Your task to perform on an android device: turn off sleep mode Image 0: 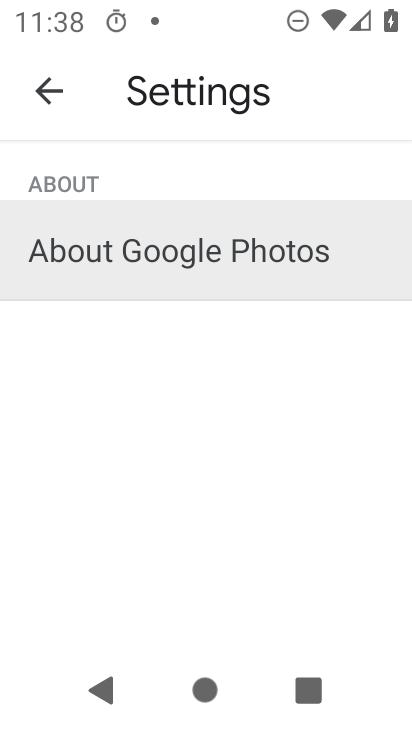
Step 0: press home button
Your task to perform on an android device: turn off sleep mode Image 1: 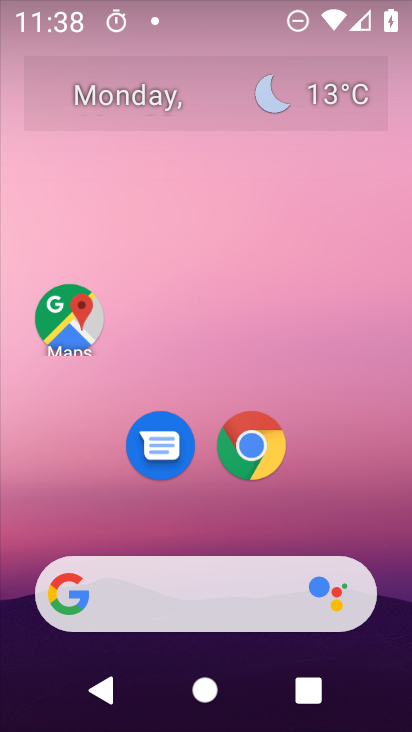
Step 1: drag from (202, 468) to (253, 21)
Your task to perform on an android device: turn off sleep mode Image 2: 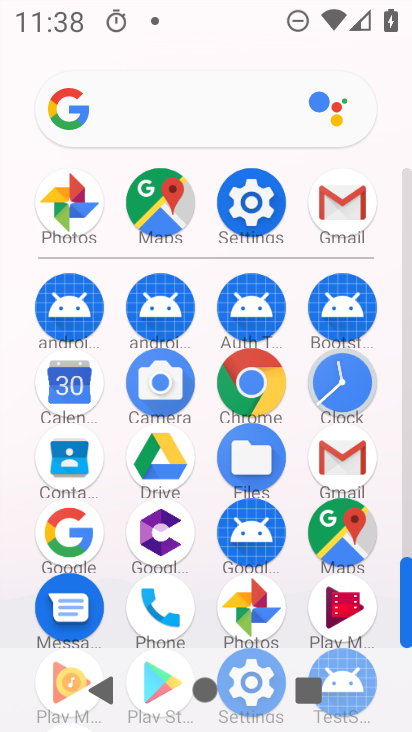
Step 2: click (245, 202)
Your task to perform on an android device: turn off sleep mode Image 3: 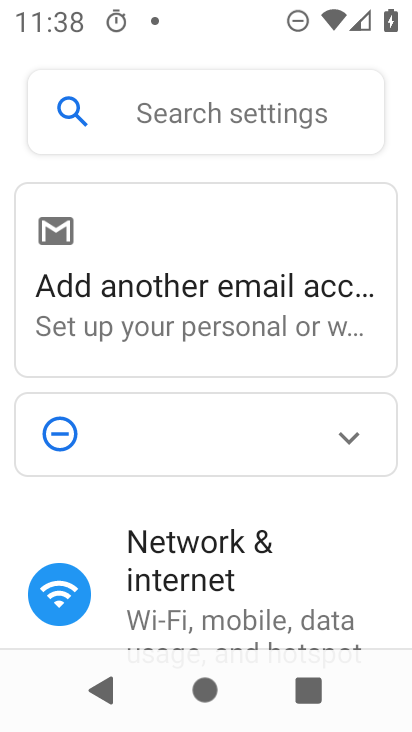
Step 3: click (175, 108)
Your task to perform on an android device: turn off sleep mode Image 4: 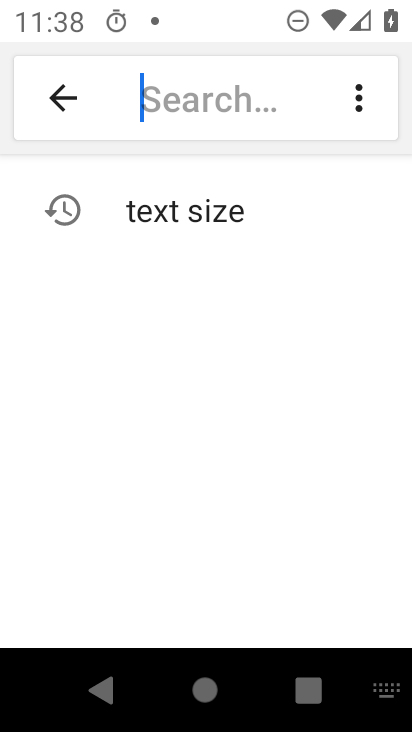
Step 4: type "sleep mode"
Your task to perform on an android device: turn off sleep mode Image 5: 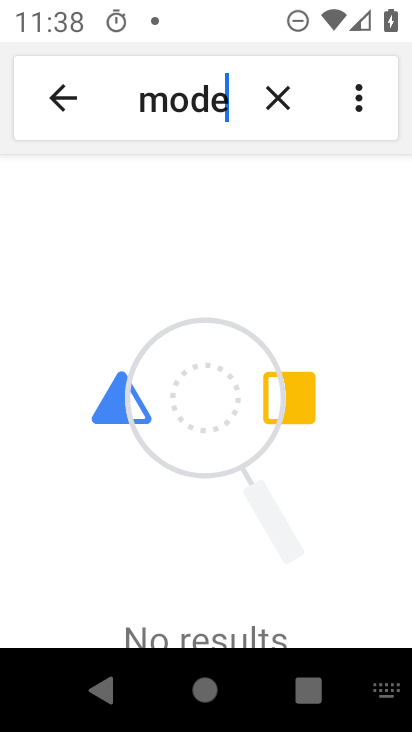
Step 5: task complete